Your task to perform on an android device: turn on showing notifications on the lock screen Image 0: 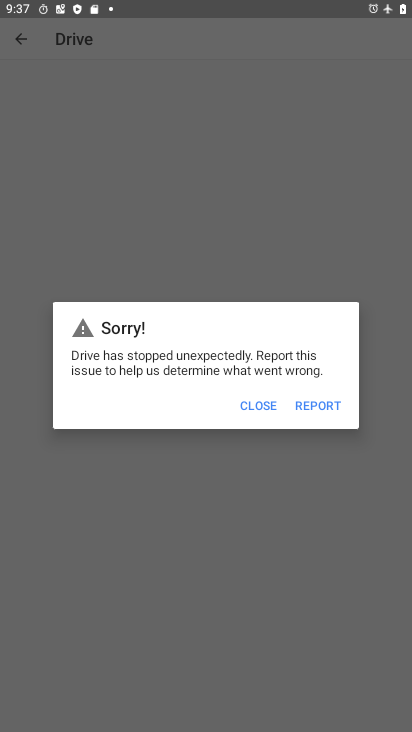
Step 0: click (258, 402)
Your task to perform on an android device: turn on showing notifications on the lock screen Image 1: 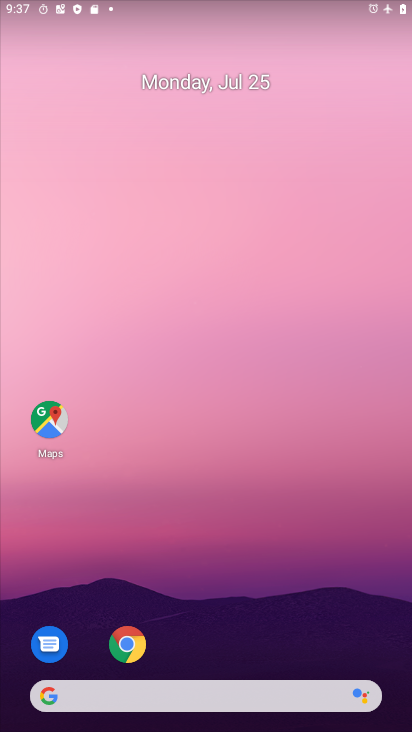
Step 1: drag from (263, 607) to (24, 12)
Your task to perform on an android device: turn on showing notifications on the lock screen Image 2: 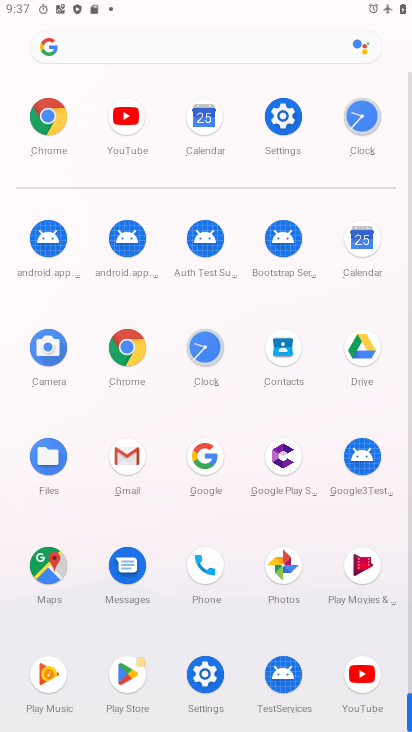
Step 2: click (275, 133)
Your task to perform on an android device: turn on showing notifications on the lock screen Image 3: 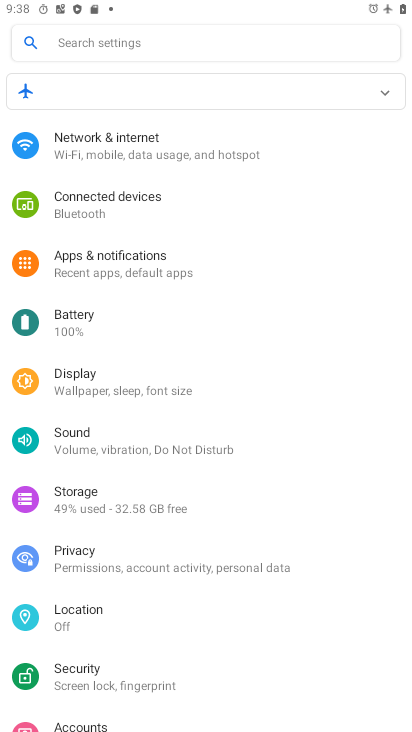
Step 3: click (179, 261)
Your task to perform on an android device: turn on showing notifications on the lock screen Image 4: 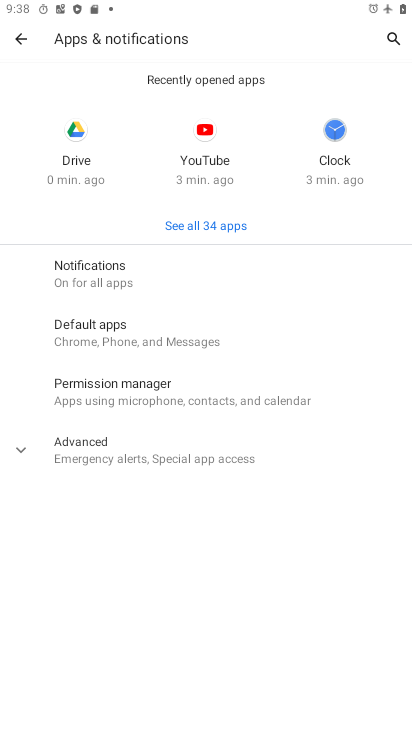
Step 4: click (117, 283)
Your task to perform on an android device: turn on showing notifications on the lock screen Image 5: 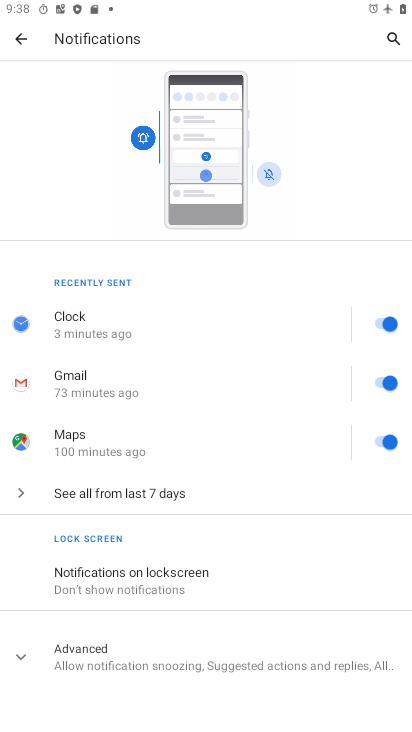
Step 5: click (226, 595)
Your task to perform on an android device: turn on showing notifications on the lock screen Image 6: 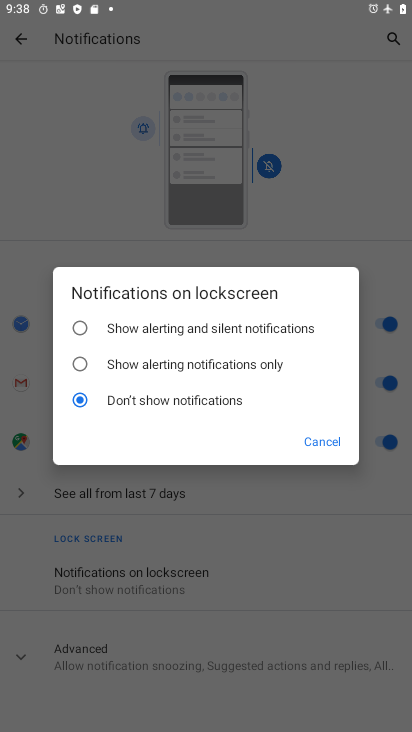
Step 6: click (148, 336)
Your task to perform on an android device: turn on showing notifications on the lock screen Image 7: 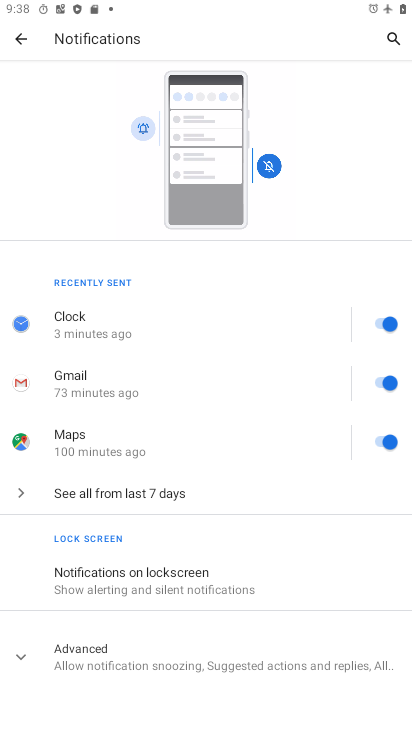
Step 7: task complete